Your task to perform on an android device: Go to Android settings Image 0: 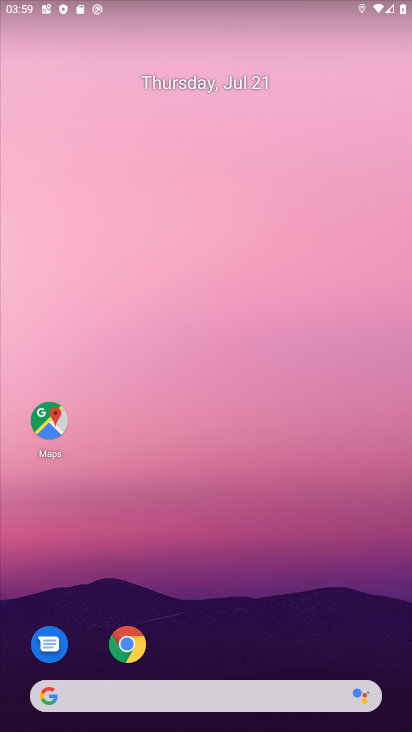
Step 0: press home button
Your task to perform on an android device: Go to Android settings Image 1: 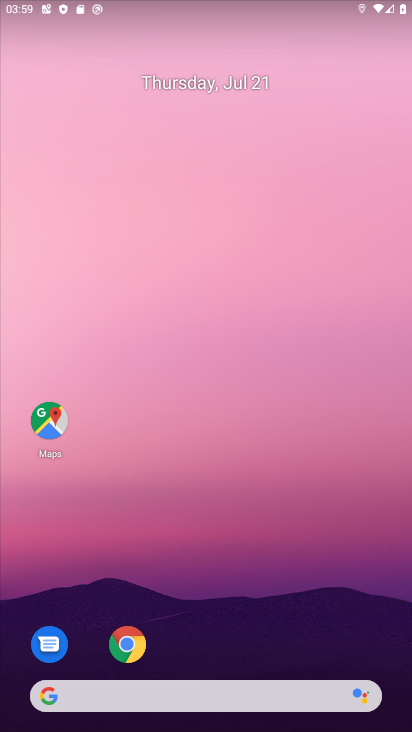
Step 1: drag from (261, 648) to (245, 0)
Your task to perform on an android device: Go to Android settings Image 2: 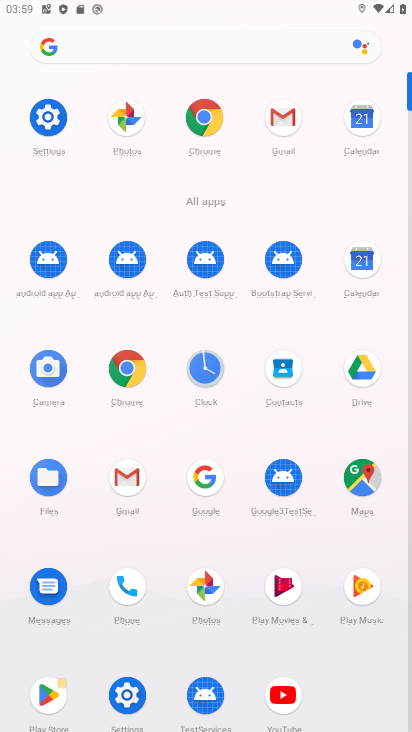
Step 2: click (54, 123)
Your task to perform on an android device: Go to Android settings Image 3: 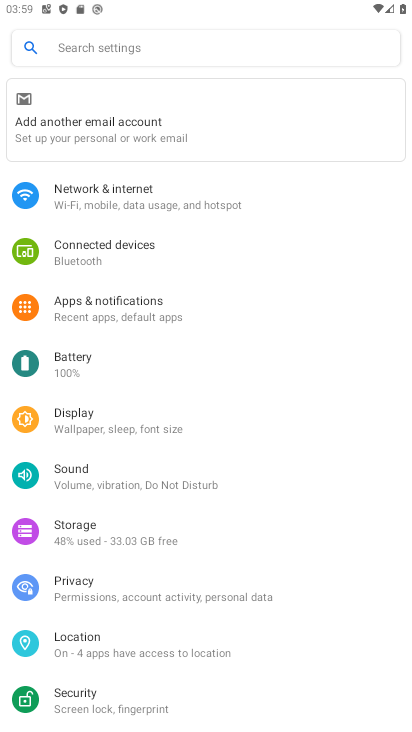
Step 3: task complete